Your task to perform on an android device: Open the calendar and show me this week's events? Image 0: 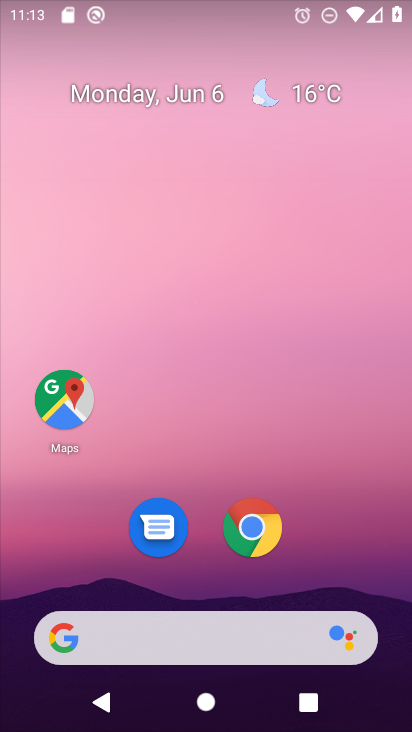
Step 0: drag from (357, 537) to (343, 196)
Your task to perform on an android device: Open the calendar and show me this week's events? Image 1: 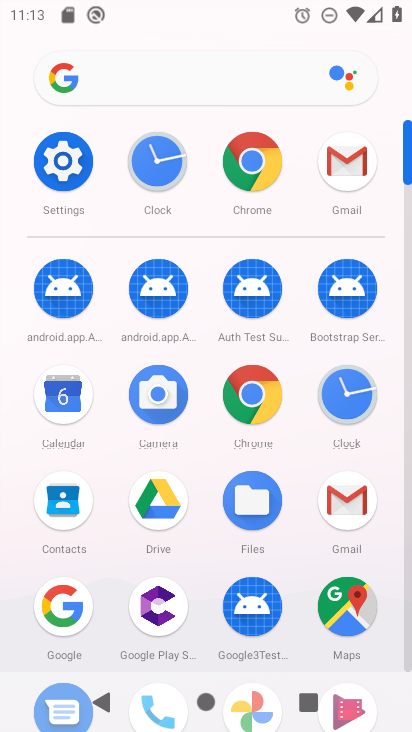
Step 1: click (56, 399)
Your task to perform on an android device: Open the calendar and show me this week's events? Image 2: 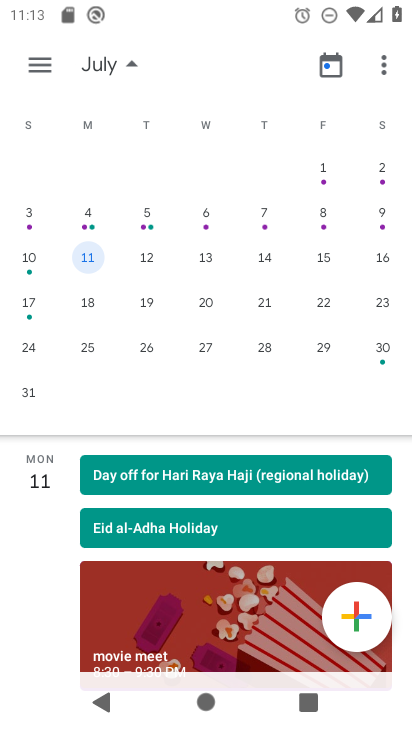
Step 2: drag from (56, 164) to (390, 158)
Your task to perform on an android device: Open the calendar and show me this week's events? Image 3: 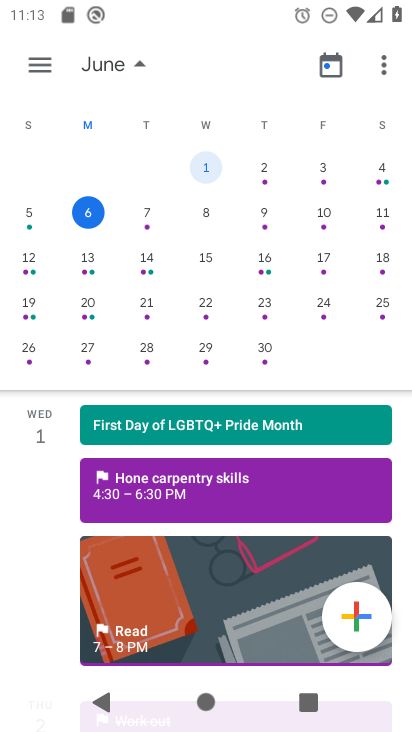
Step 3: click (147, 221)
Your task to perform on an android device: Open the calendar and show me this week's events? Image 4: 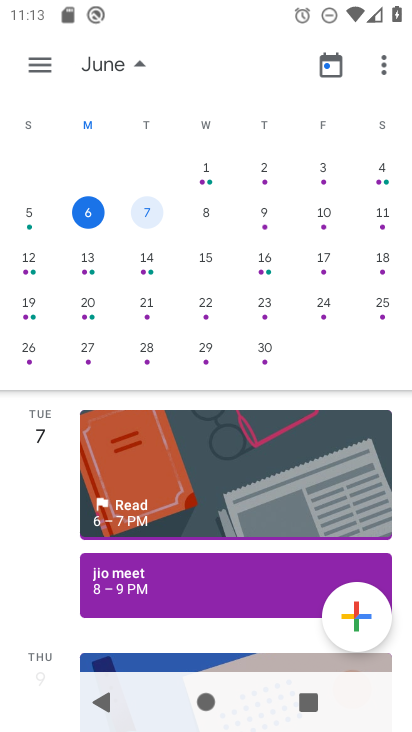
Step 4: task complete